Your task to perform on an android device: Open Android settings Image 0: 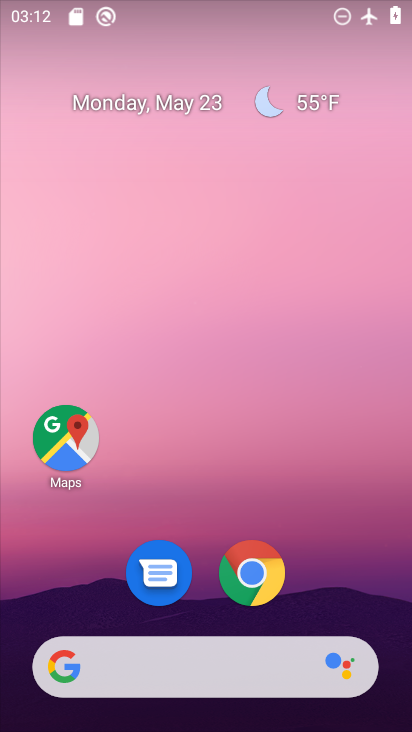
Step 0: drag from (339, 571) to (261, 24)
Your task to perform on an android device: Open Android settings Image 1: 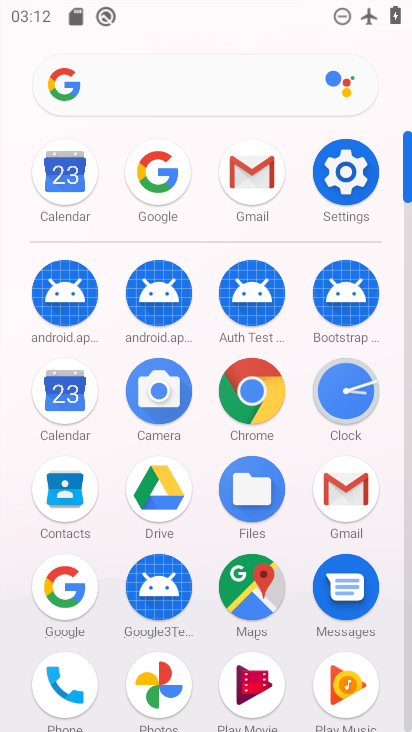
Step 1: click (353, 182)
Your task to perform on an android device: Open Android settings Image 2: 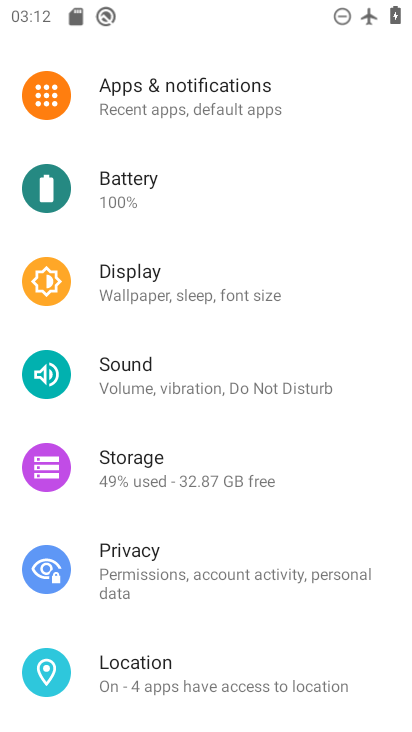
Step 2: drag from (245, 619) to (200, 161)
Your task to perform on an android device: Open Android settings Image 3: 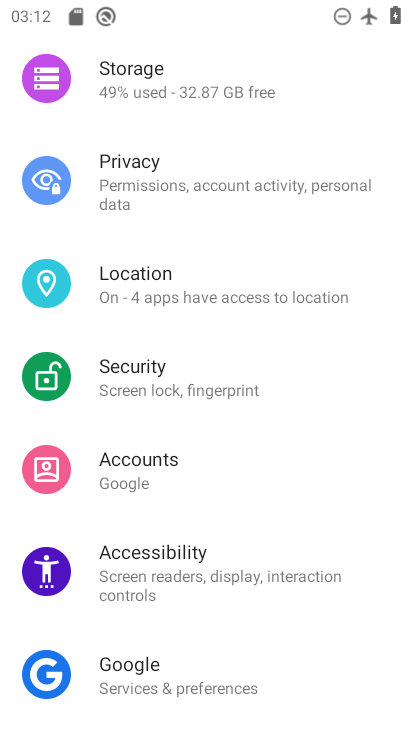
Step 3: drag from (239, 649) to (194, 122)
Your task to perform on an android device: Open Android settings Image 4: 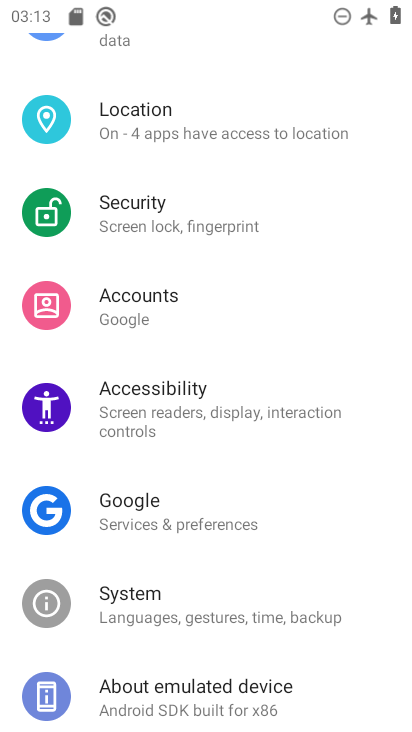
Step 4: click (231, 701)
Your task to perform on an android device: Open Android settings Image 5: 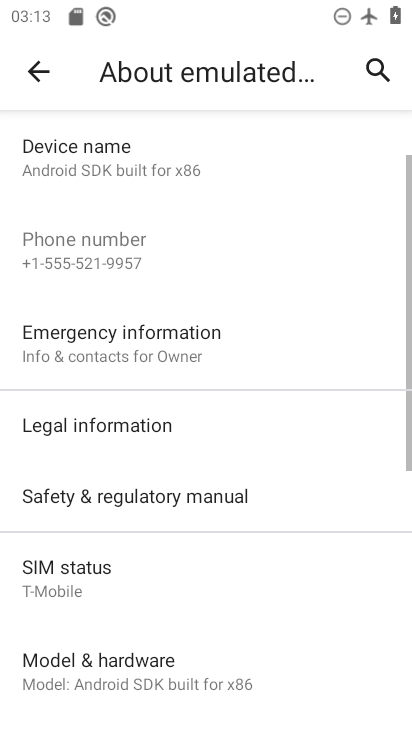
Step 5: drag from (247, 643) to (200, 254)
Your task to perform on an android device: Open Android settings Image 6: 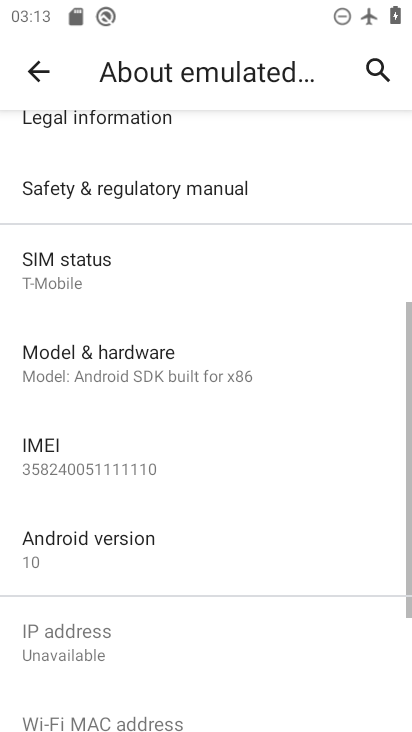
Step 6: click (103, 566)
Your task to perform on an android device: Open Android settings Image 7: 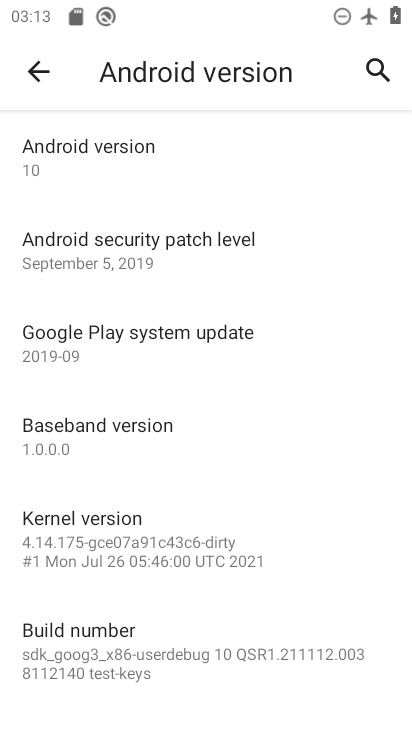
Step 7: task complete